Your task to perform on an android device: Open ESPN.com Image 0: 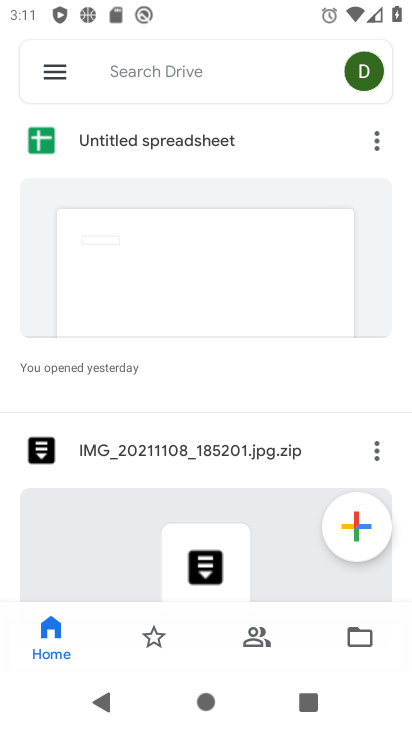
Step 0: press back button
Your task to perform on an android device: Open ESPN.com Image 1: 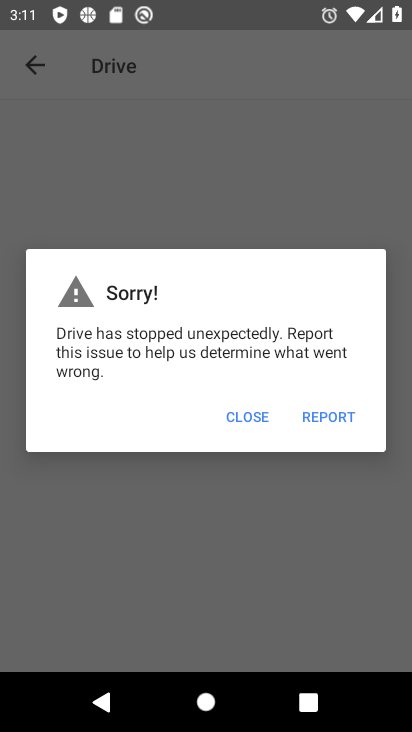
Step 1: press home button
Your task to perform on an android device: Open ESPN.com Image 2: 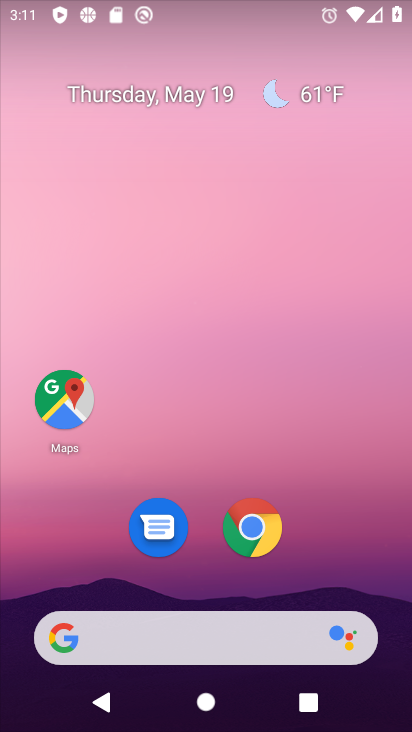
Step 2: click (243, 535)
Your task to perform on an android device: Open ESPN.com Image 3: 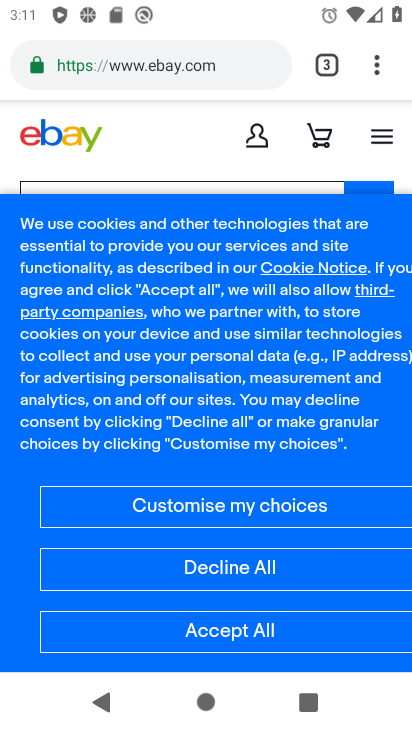
Step 3: click (320, 66)
Your task to perform on an android device: Open ESPN.com Image 4: 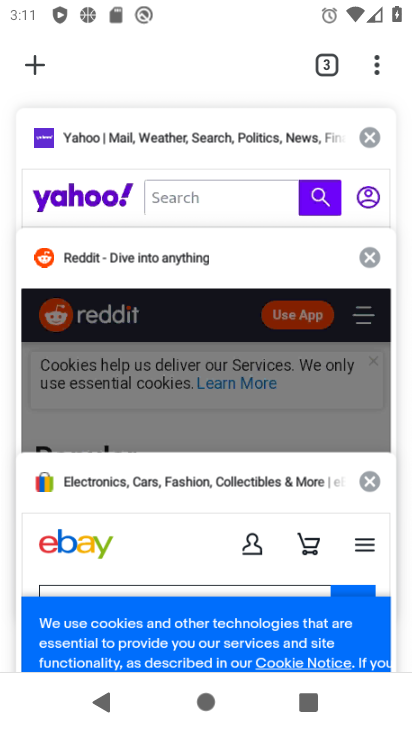
Step 4: click (45, 65)
Your task to perform on an android device: Open ESPN.com Image 5: 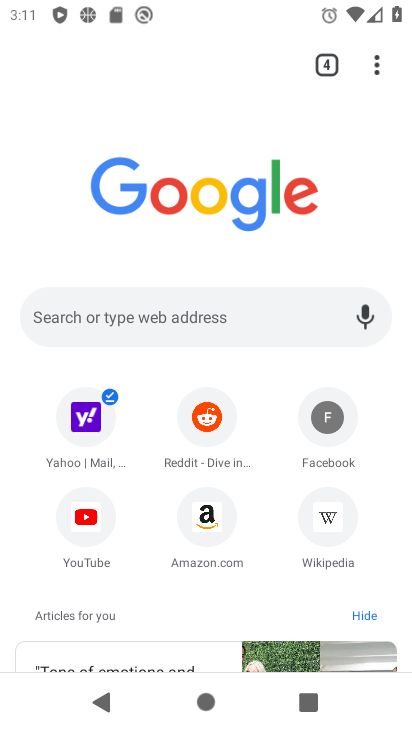
Step 5: click (176, 336)
Your task to perform on an android device: Open ESPN.com Image 6: 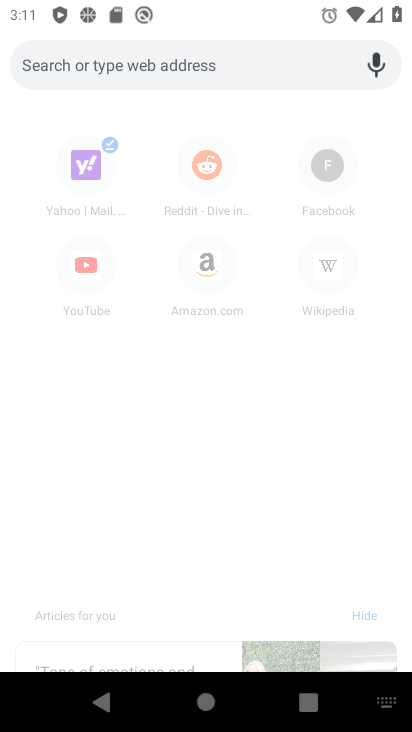
Step 6: type "espn"
Your task to perform on an android device: Open ESPN.com Image 7: 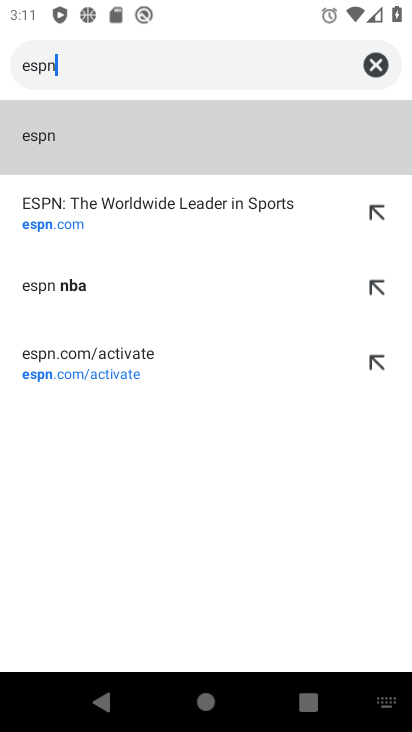
Step 7: click (109, 231)
Your task to perform on an android device: Open ESPN.com Image 8: 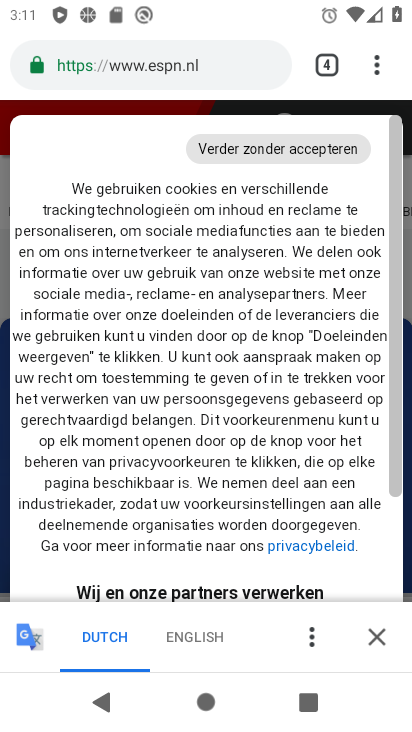
Step 8: task complete